Your task to perform on an android device: turn off javascript in the chrome app Image 0: 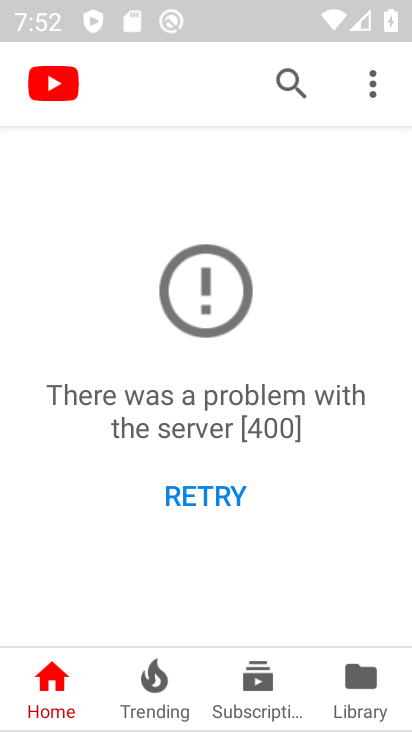
Step 0: press back button
Your task to perform on an android device: turn off javascript in the chrome app Image 1: 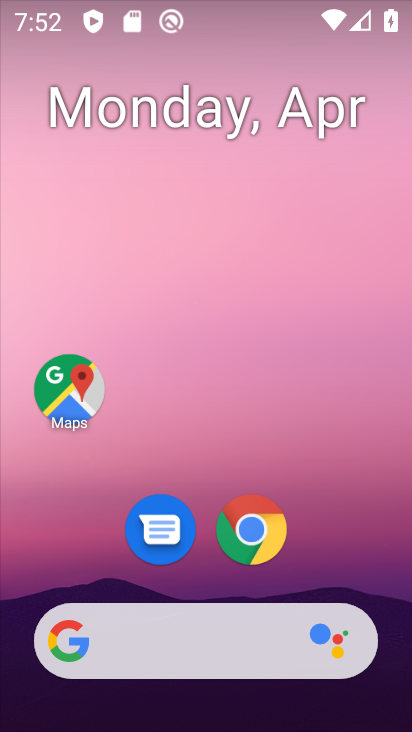
Step 1: click (274, 524)
Your task to perform on an android device: turn off javascript in the chrome app Image 2: 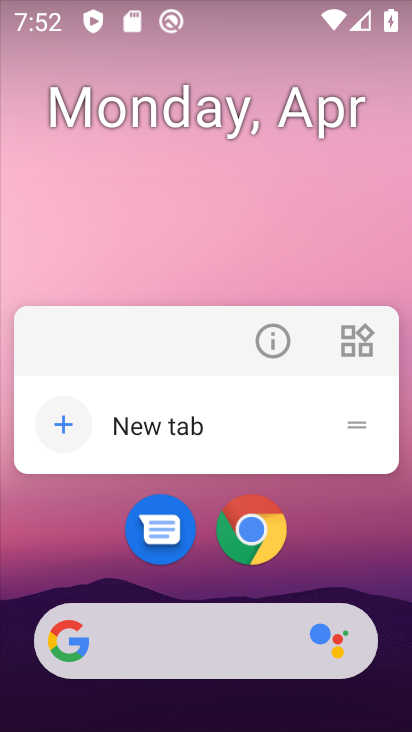
Step 2: click (258, 530)
Your task to perform on an android device: turn off javascript in the chrome app Image 3: 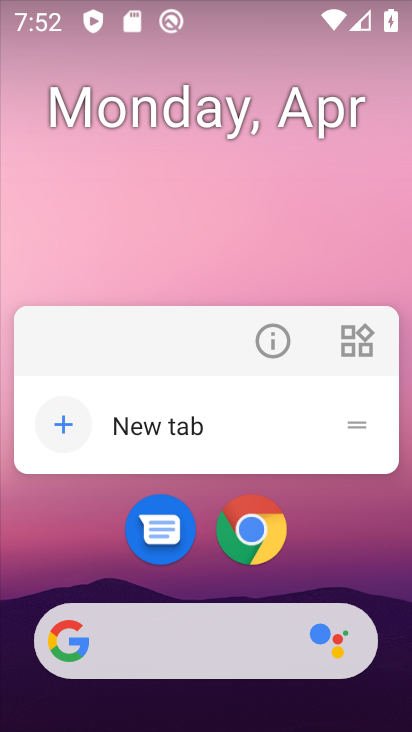
Step 3: click (255, 532)
Your task to perform on an android device: turn off javascript in the chrome app Image 4: 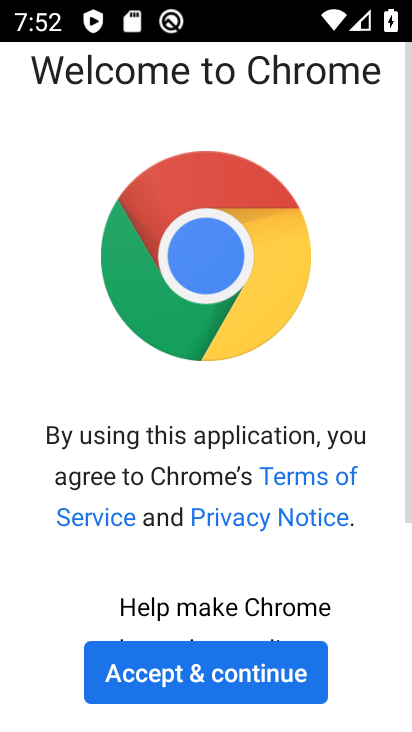
Step 4: click (216, 675)
Your task to perform on an android device: turn off javascript in the chrome app Image 5: 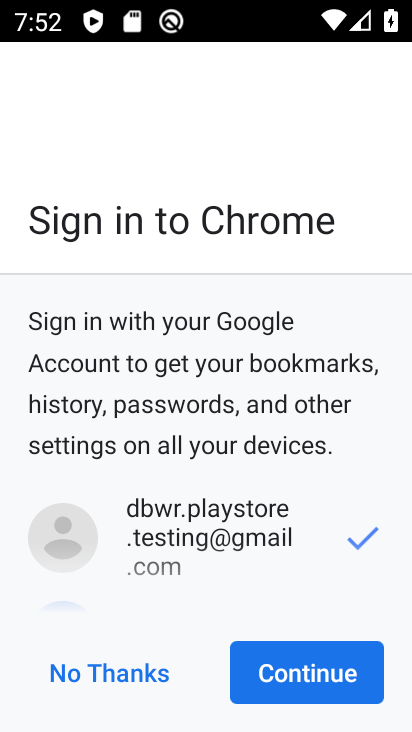
Step 5: click (300, 677)
Your task to perform on an android device: turn off javascript in the chrome app Image 6: 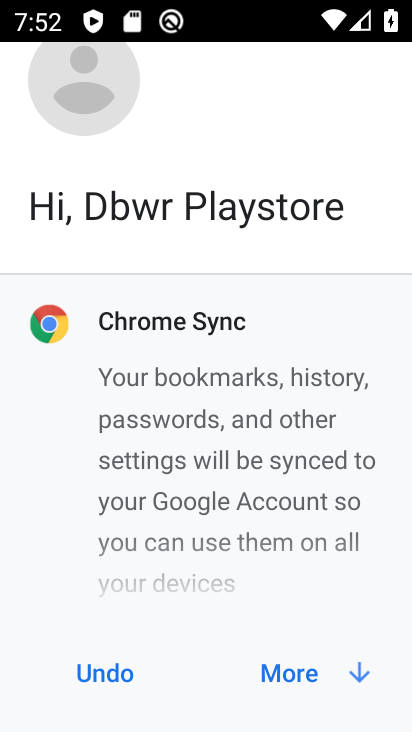
Step 6: click (300, 676)
Your task to perform on an android device: turn off javascript in the chrome app Image 7: 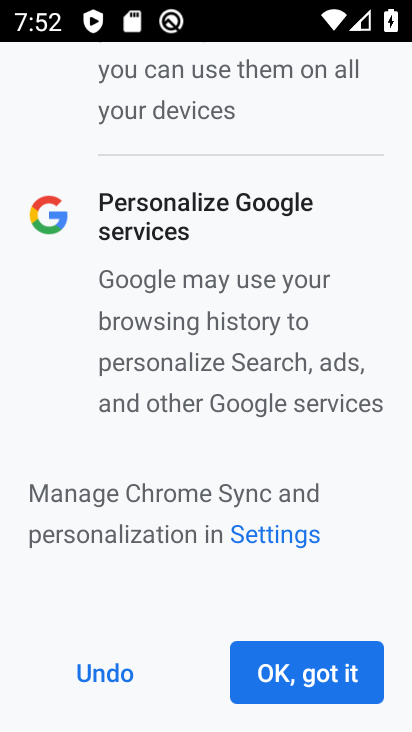
Step 7: click (300, 676)
Your task to perform on an android device: turn off javascript in the chrome app Image 8: 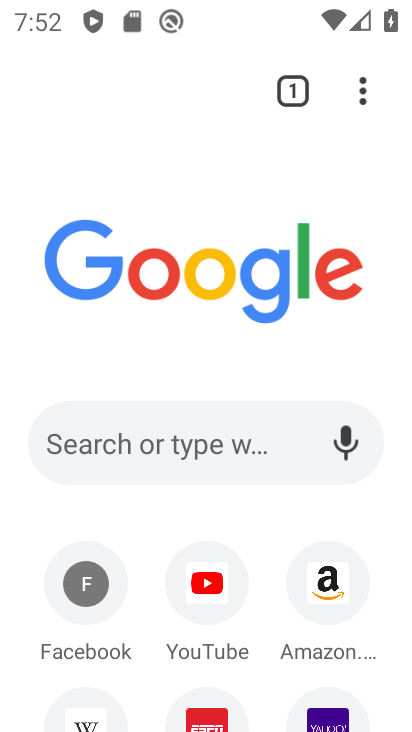
Step 8: click (359, 98)
Your task to perform on an android device: turn off javascript in the chrome app Image 9: 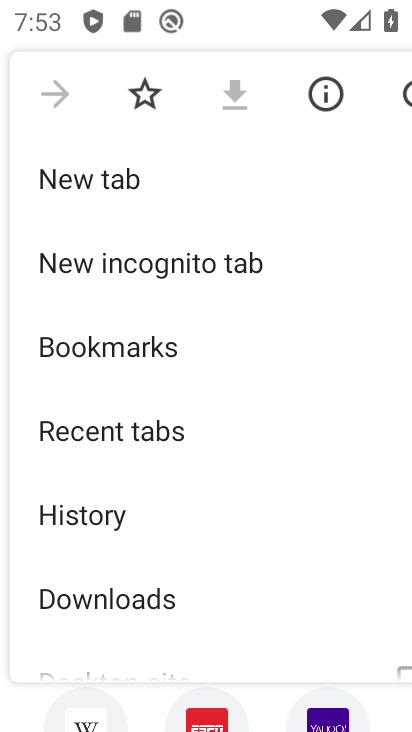
Step 9: drag from (141, 567) to (219, 99)
Your task to perform on an android device: turn off javascript in the chrome app Image 10: 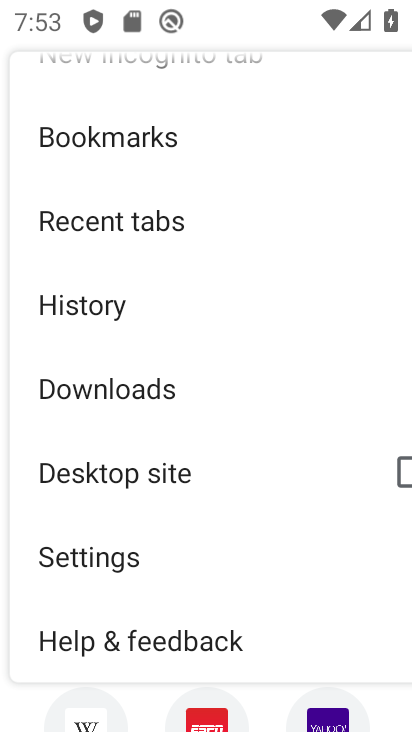
Step 10: click (99, 568)
Your task to perform on an android device: turn off javascript in the chrome app Image 11: 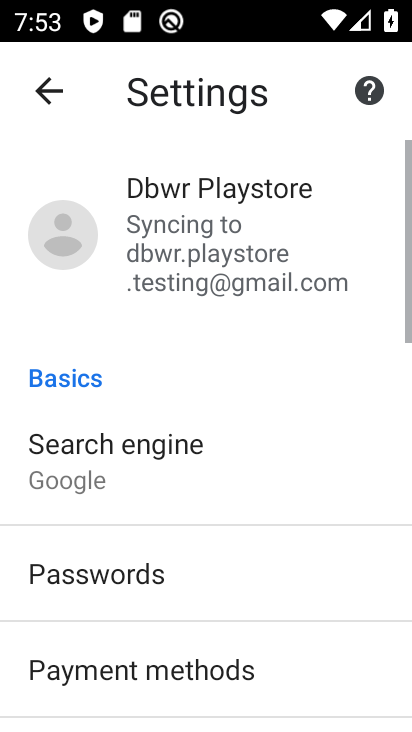
Step 11: drag from (137, 610) to (218, 113)
Your task to perform on an android device: turn off javascript in the chrome app Image 12: 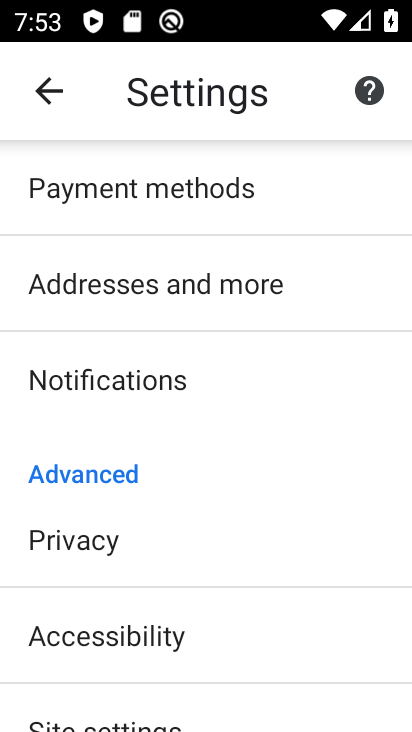
Step 12: drag from (195, 579) to (275, 187)
Your task to perform on an android device: turn off javascript in the chrome app Image 13: 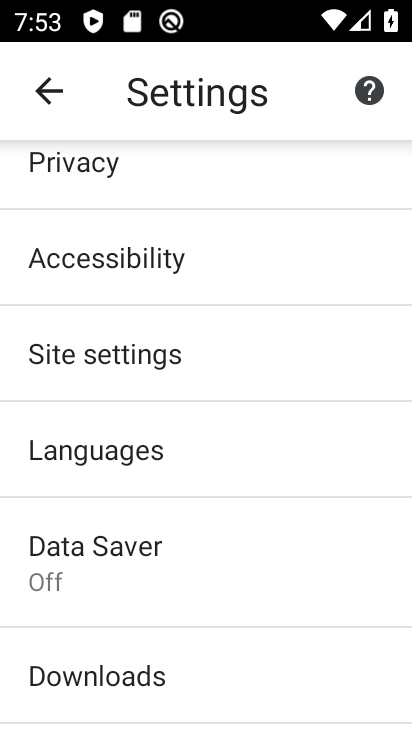
Step 13: click (116, 363)
Your task to perform on an android device: turn off javascript in the chrome app Image 14: 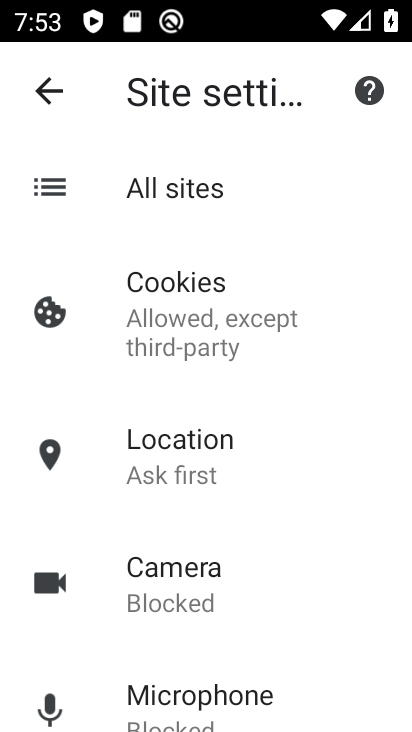
Step 14: drag from (213, 614) to (287, 151)
Your task to perform on an android device: turn off javascript in the chrome app Image 15: 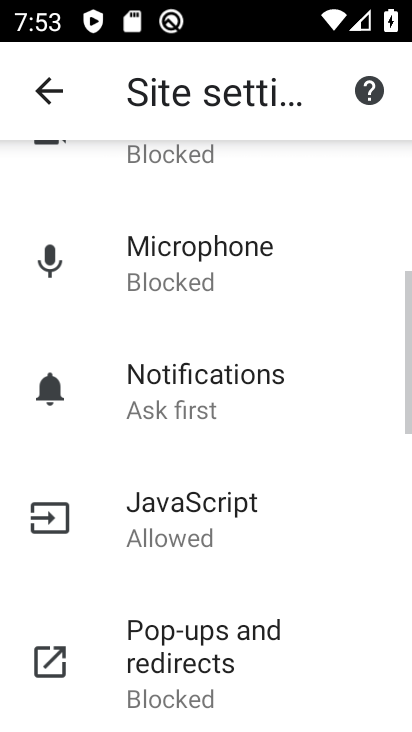
Step 15: click (220, 512)
Your task to perform on an android device: turn off javascript in the chrome app Image 16: 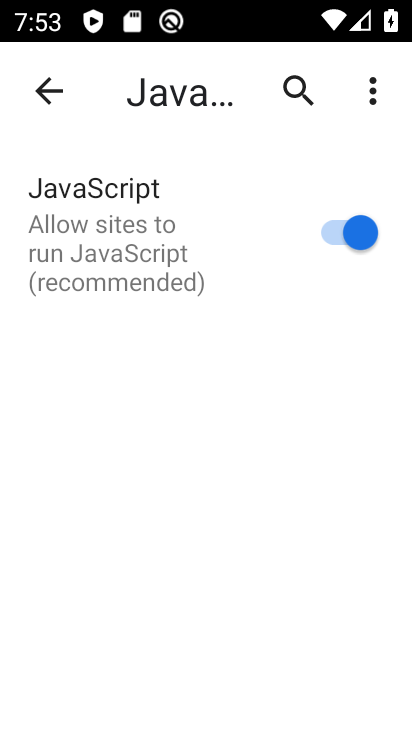
Step 16: click (349, 242)
Your task to perform on an android device: turn off javascript in the chrome app Image 17: 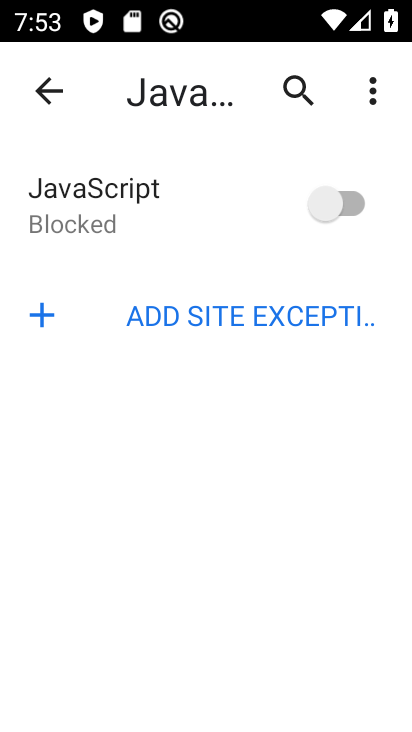
Step 17: task complete